Your task to perform on an android device: turn off translation in the chrome app Image 0: 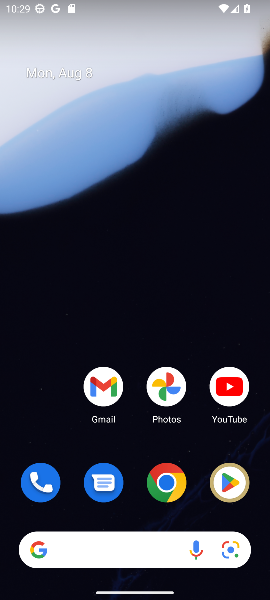
Step 0: click (166, 485)
Your task to perform on an android device: turn off translation in the chrome app Image 1: 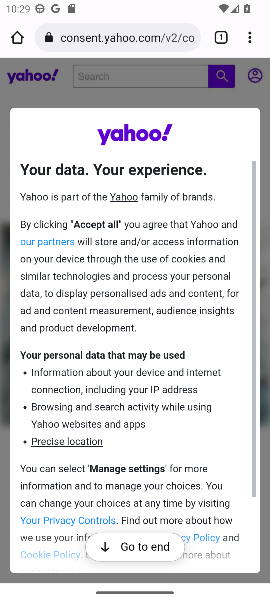
Step 1: click (255, 32)
Your task to perform on an android device: turn off translation in the chrome app Image 2: 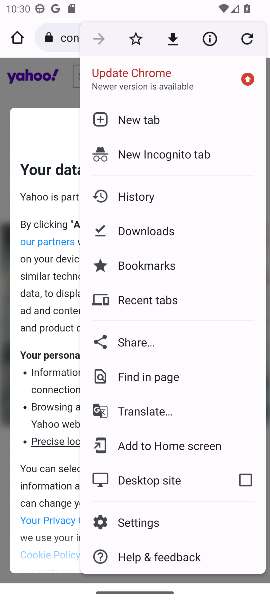
Step 2: click (144, 520)
Your task to perform on an android device: turn off translation in the chrome app Image 3: 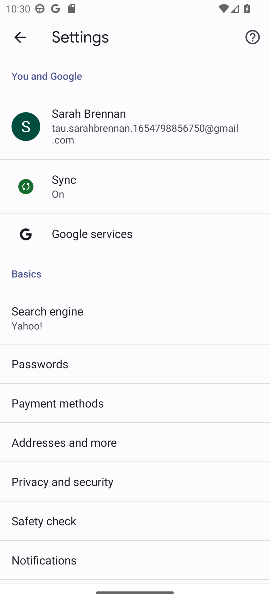
Step 3: drag from (79, 537) to (72, 43)
Your task to perform on an android device: turn off translation in the chrome app Image 4: 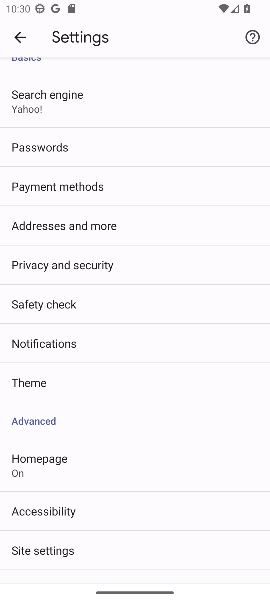
Step 4: drag from (104, 410) to (109, 27)
Your task to perform on an android device: turn off translation in the chrome app Image 5: 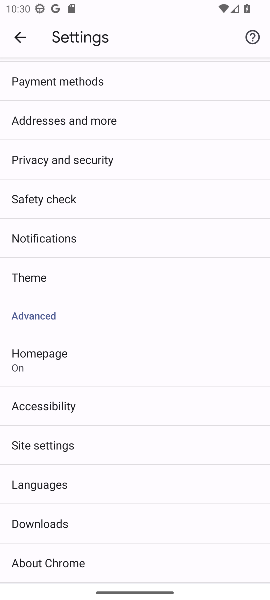
Step 5: click (109, 486)
Your task to perform on an android device: turn off translation in the chrome app Image 6: 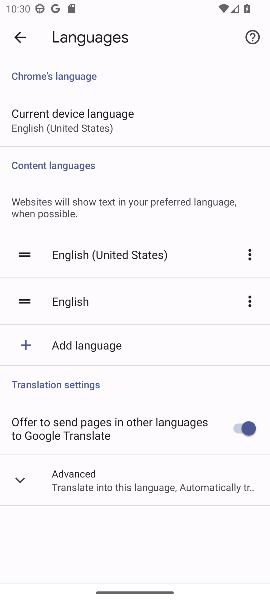
Step 6: click (244, 433)
Your task to perform on an android device: turn off translation in the chrome app Image 7: 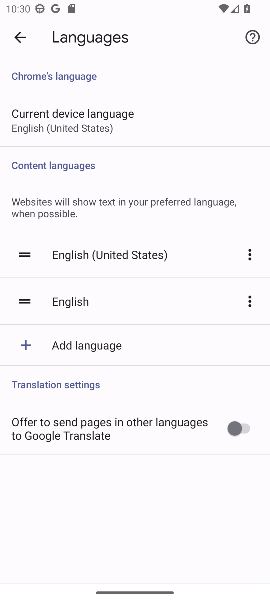
Step 7: task complete